Your task to perform on an android device: turn notification dots on Image 0: 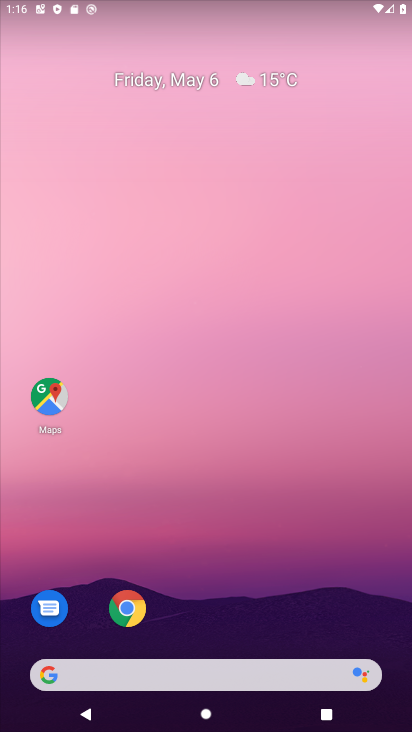
Step 0: drag from (296, 589) to (303, 86)
Your task to perform on an android device: turn notification dots on Image 1: 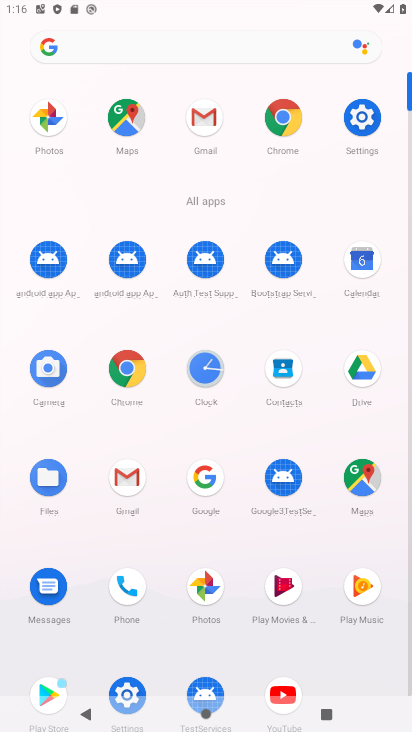
Step 1: click (123, 681)
Your task to perform on an android device: turn notification dots on Image 2: 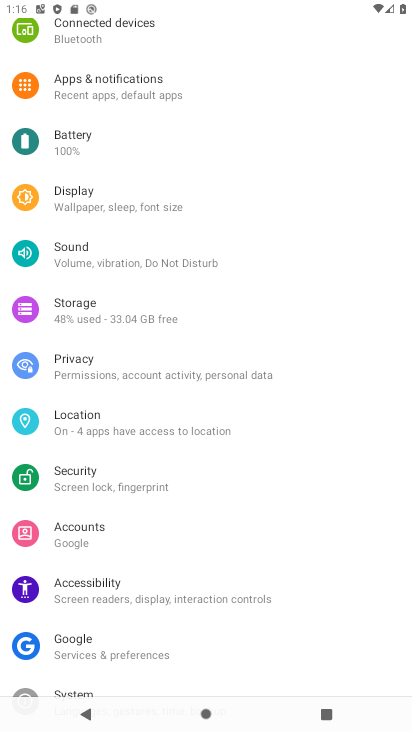
Step 2: click (114, 92)
Your task to perform on an android device: turn notification dots on Image 3: 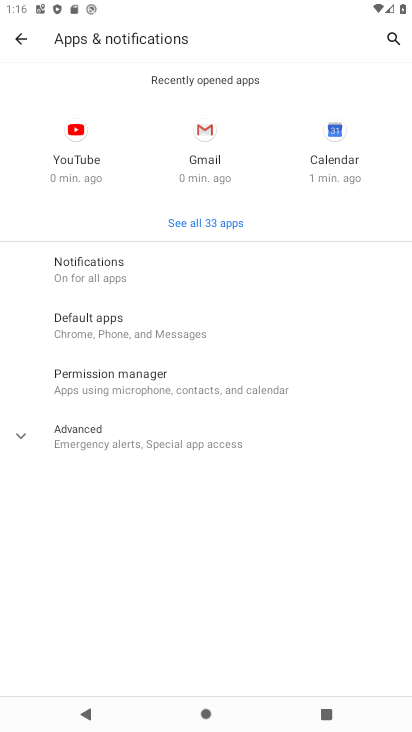
Step 3: click (191, 257)
Your task to perform on an android device: turn notification dots on Image 4: 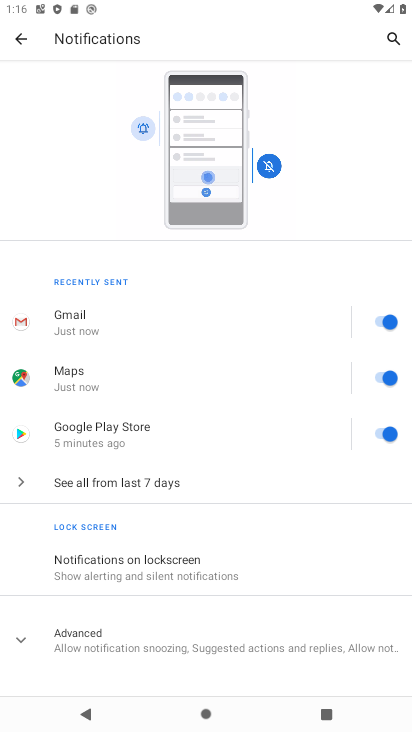
Step 4: click (161, 629)
Your task to perform on an android device: turn notification dots on Image 5: 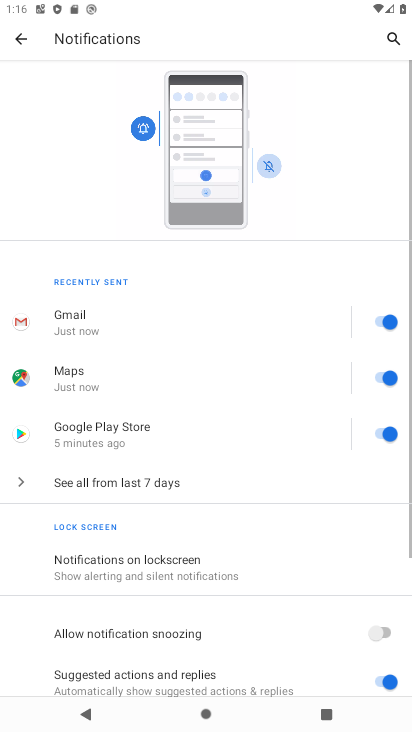
Step 5: task complete